Your task to perform on an android device: Clear all items from cart on target.com. Add sony triple a to the cart on target.com, then select checkout. Image 0: 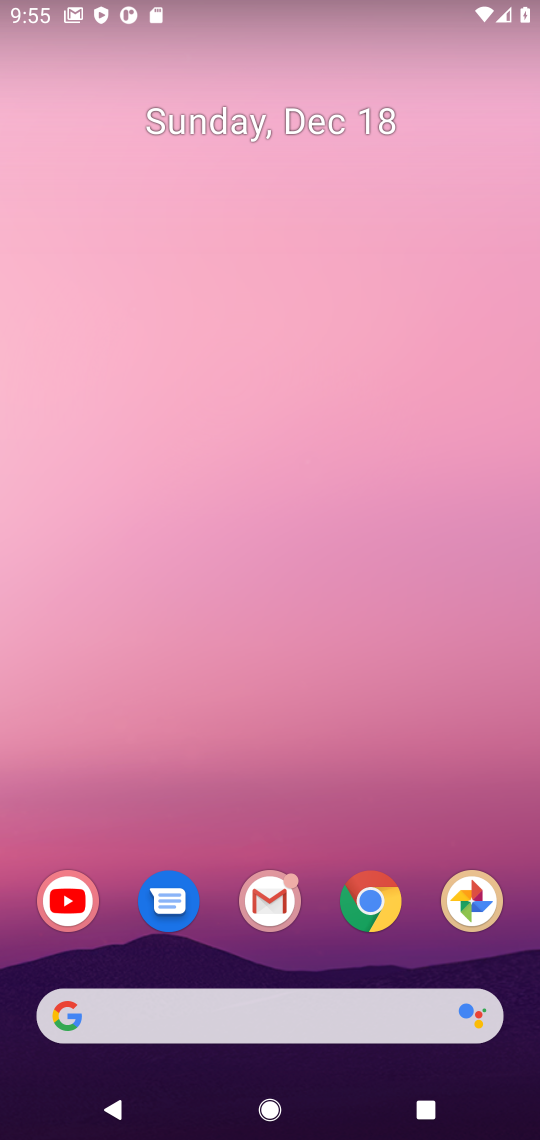
Step 0: click (358, 902)
Your task to perform on an android device: Clear all items from cart on target.com. Add sony triple a to the cart on target.com, then select checkout. Image 1: 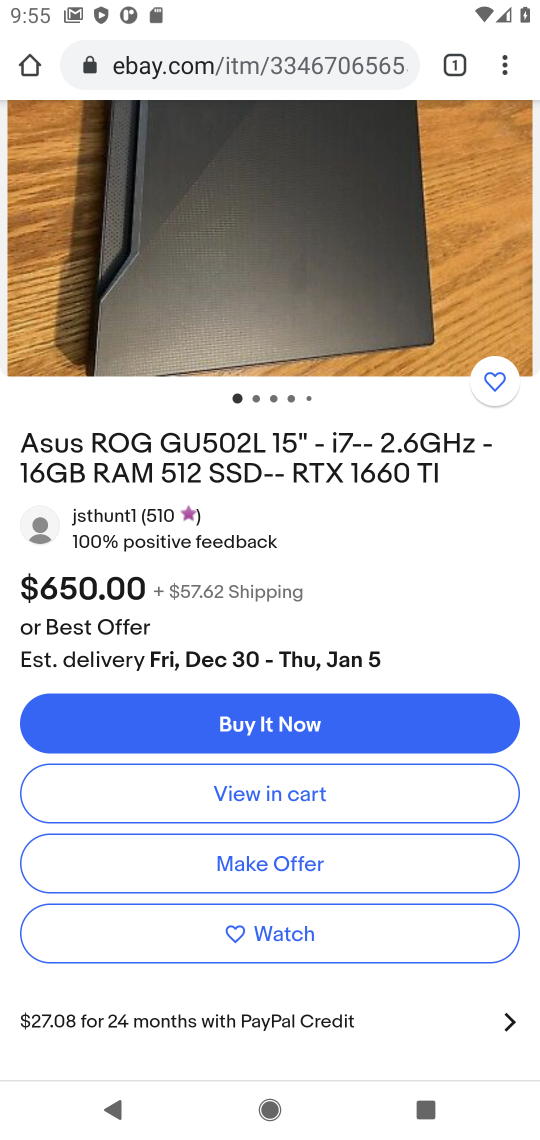
Step 1: click (277, 53)
Your task to perform on an android device: Clear all items from cart on target.com. Add sony triple a to the cart on target.com, then select checkout. Image 2: 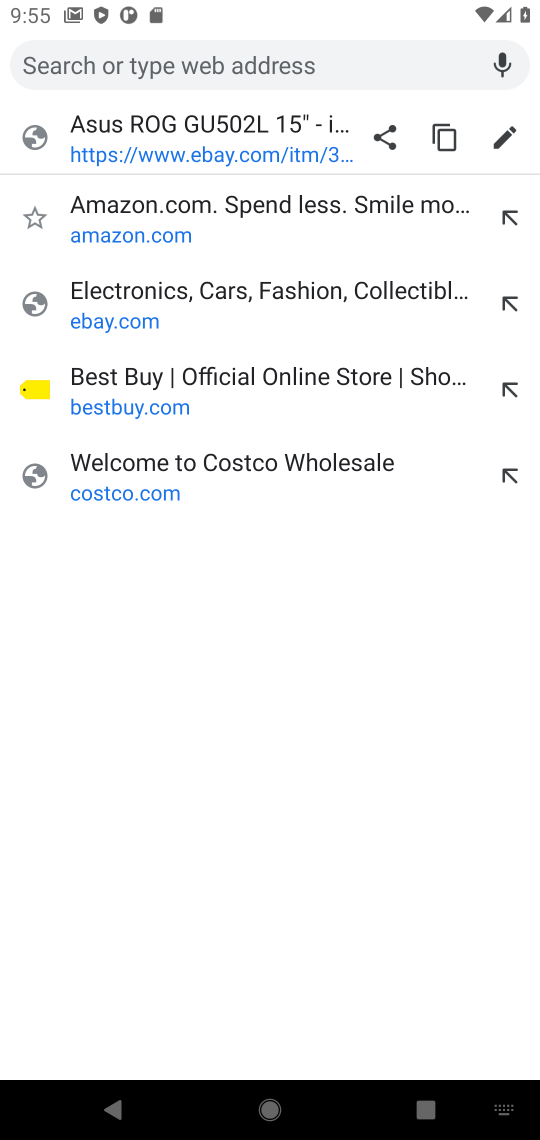
Step 2: type "target"
Your task to perform on an android device: Clear all items from cart on target.com. Add sony triple a to the cart on target.com, then select checkout. Image 3: 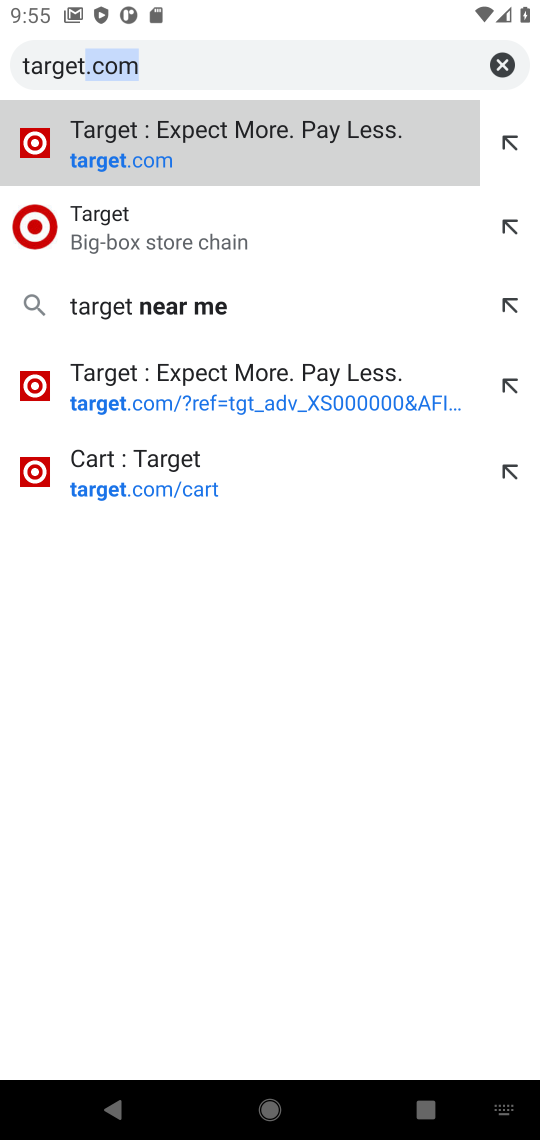
Step 3: click (205, 159)
Your task to perform on an android device: Clear all items from cart on target.com. Add sony triple a to the cart on target.com, then select checkout. Image 4: 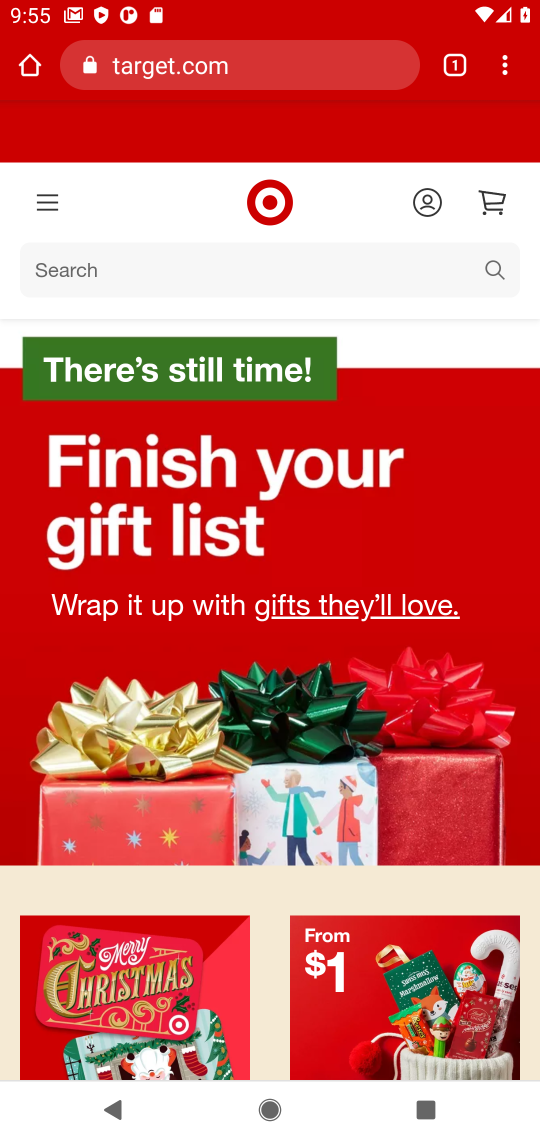
Step 4: click (91, 257)
Your task to perform on an android device: Clear all items from cart on target.com. Add sony triple a to the cart on target.com, then select checkout. Image 5: 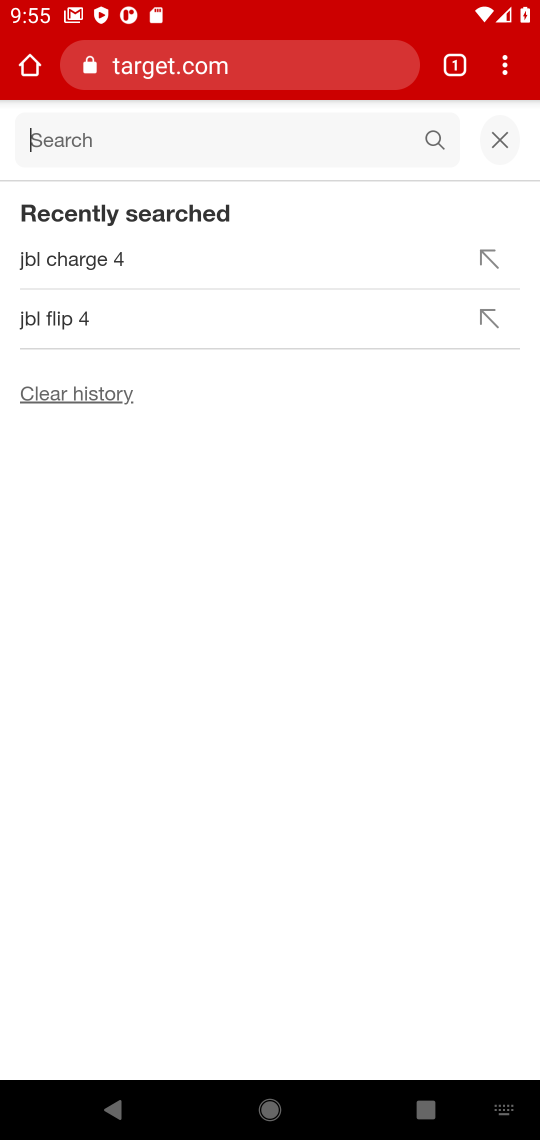
Step 5: type "sony triple a"
Your task to perform on an android device: Clear all items from cart on target.com. Add sony triple a to the cart on target.com, then select checkout. Image 6: 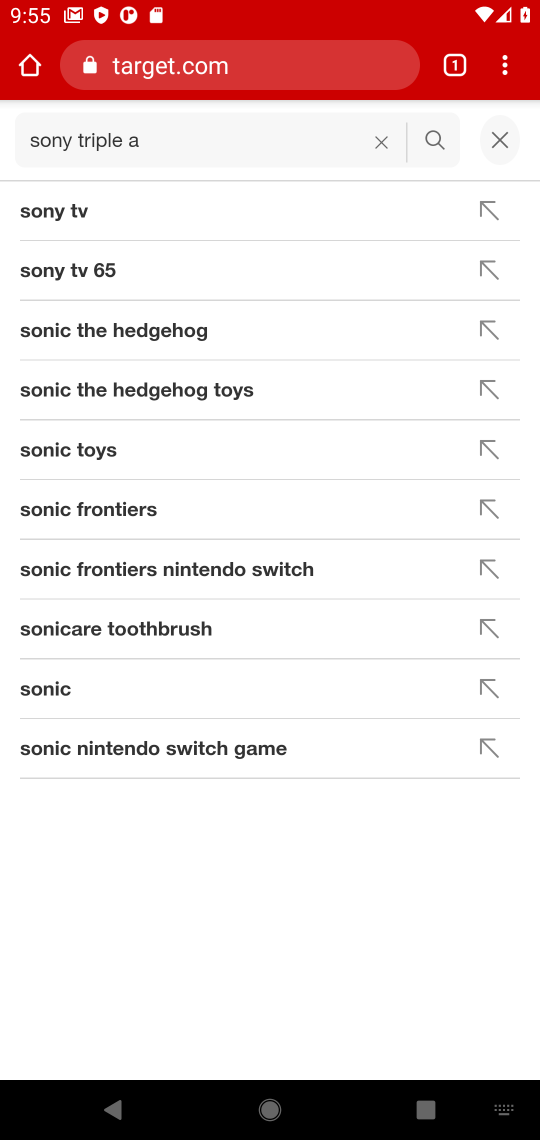
Step 6: click (419, 143)
Your task to perform on an android device: Clear all items from cart on target.com. Add sony triple a to the cart on target.com, then select checkout. Image 7: 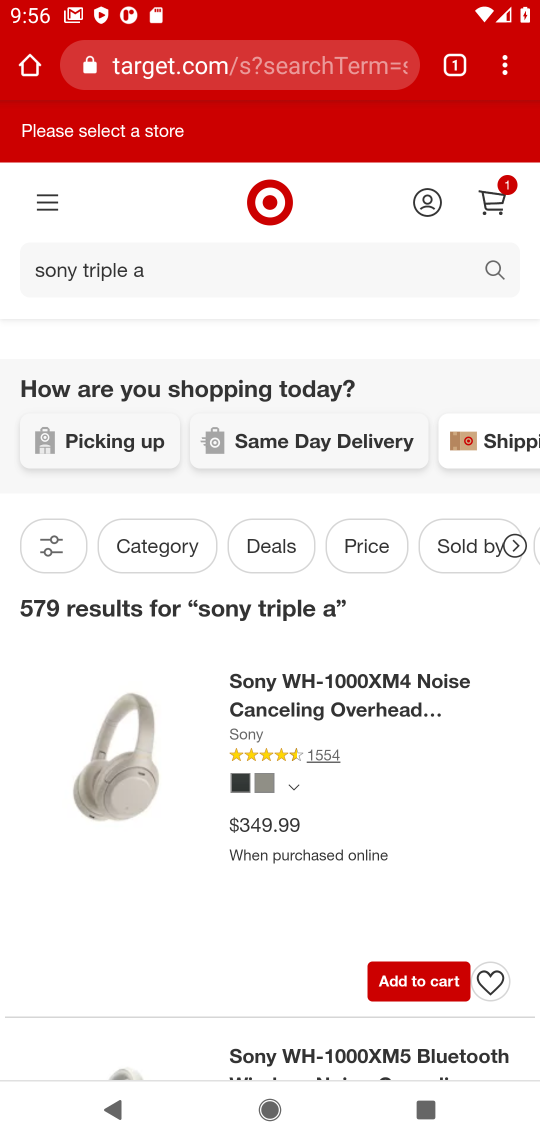
Step 7: task complete